Your task to perform on an android device: Search for the best Nike running shoes on Nike.com Image 0: 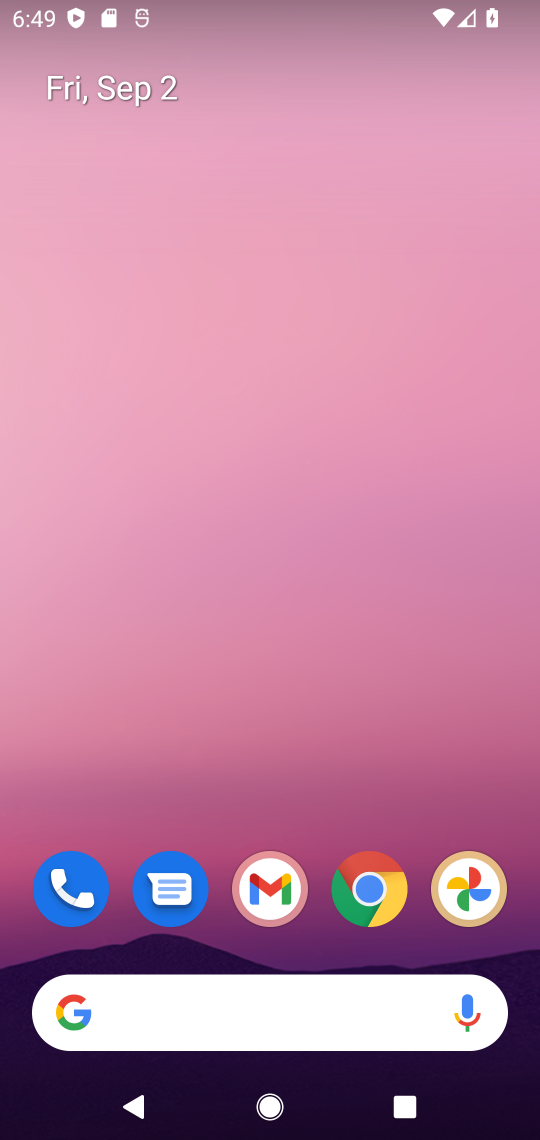
Step 0: click (228, 988)
Your task to perform on an android device: Search for the best Nike running shoes on Nike.com Image 1: 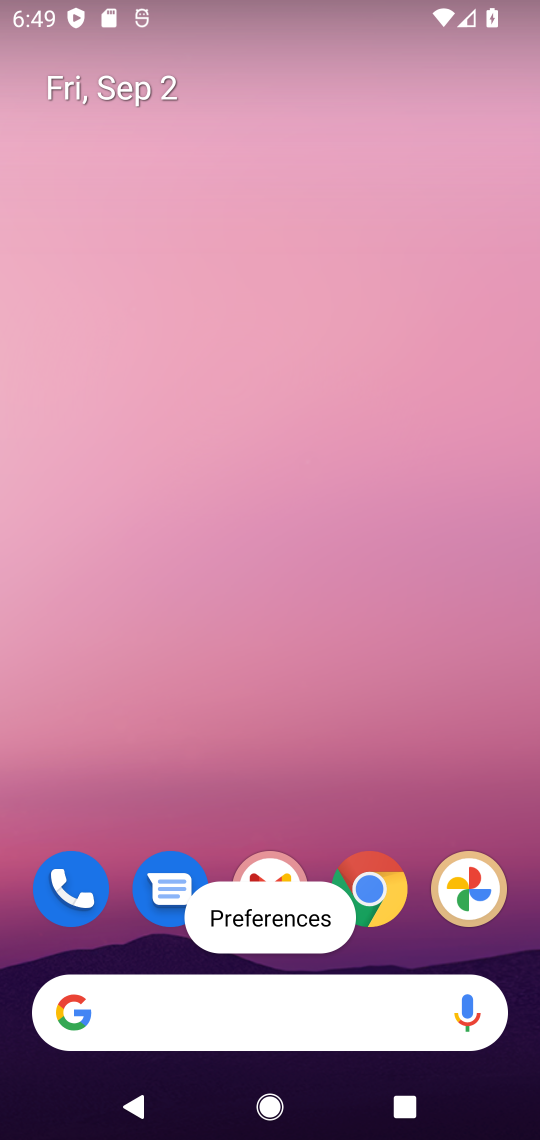
Step 1: type "Nike.com"
Your task to perform on an android device: Search for the best Nike running shoes on Nike.com Image 2: 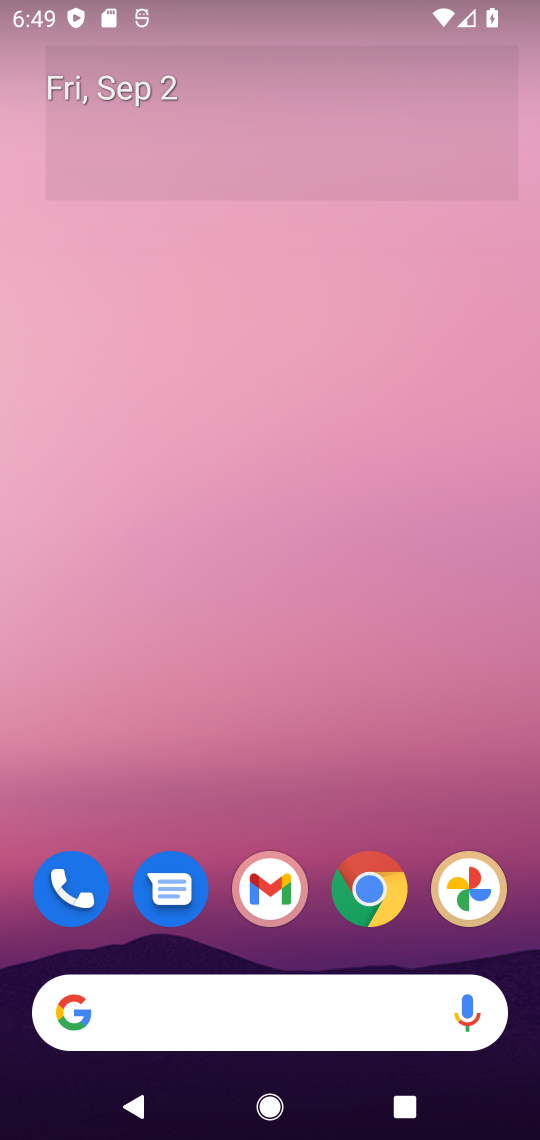
Step 2: click (253, 1026)
Your task to perform on an android device: Search for the best Nike running shoes on Nike.com Image 3: 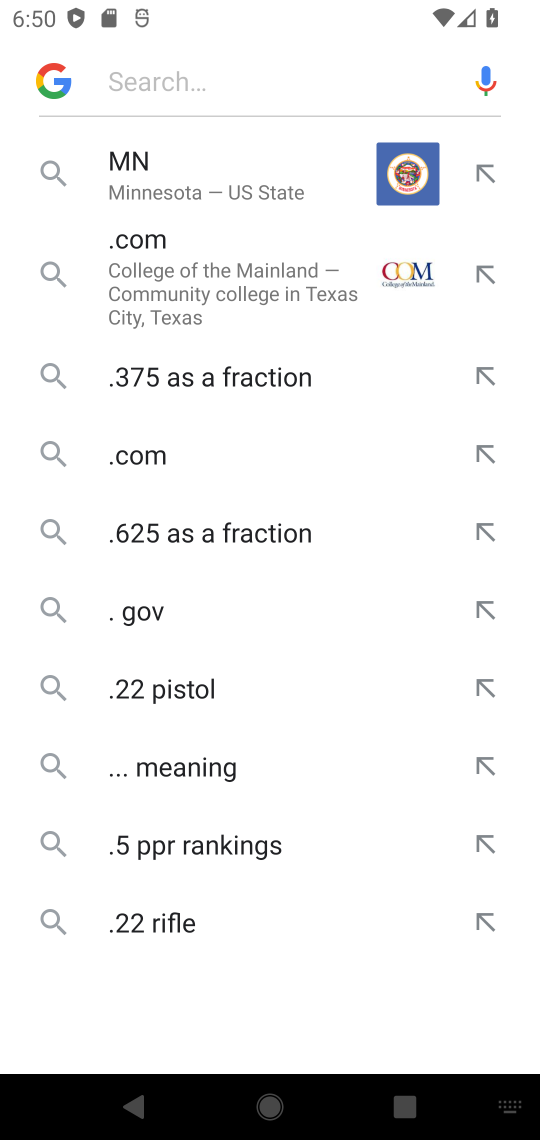
Step 3: type "Nike.com"
Your task to perform on an android device: Search for the best Nike running shoes on Nike.com Image 4: 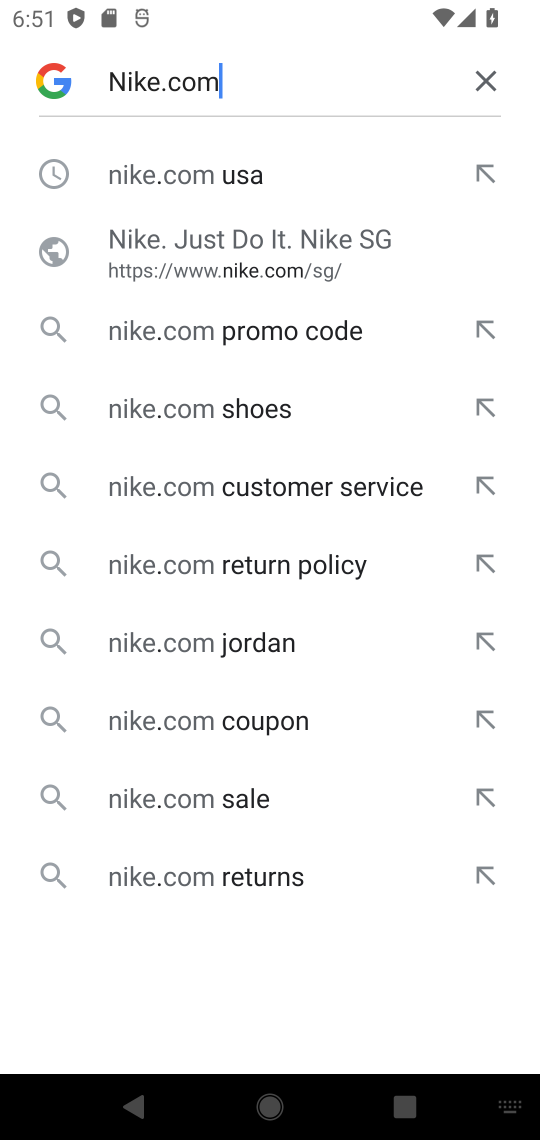
Step 4: click (216, 188)
Your task to perform on an android device: Search for the best Nike running shoes on Nike.com Image 5: 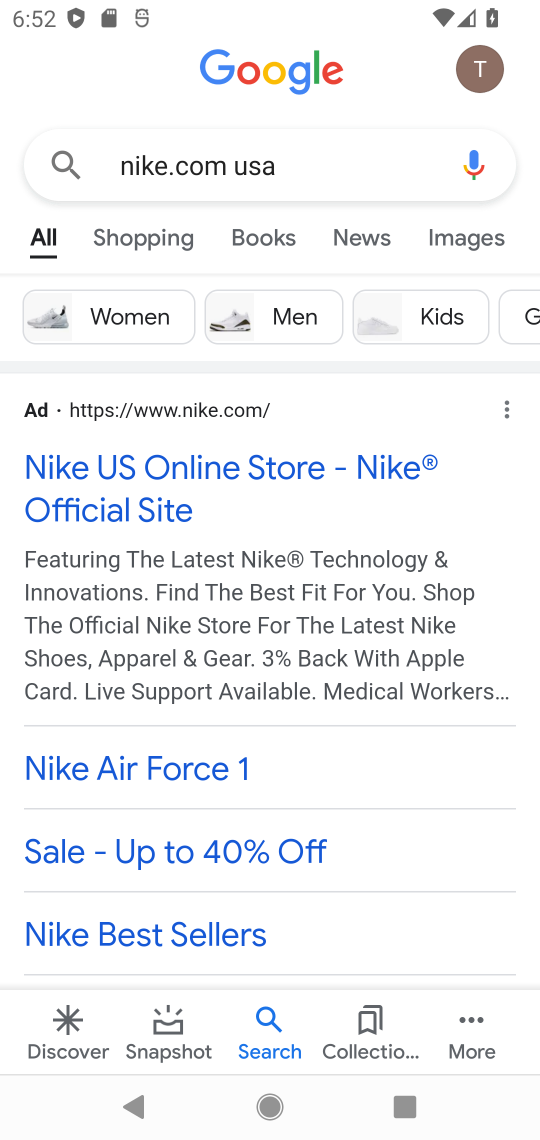
Step 5: click (227, 363)
Your task to perform on an android device: Search for the best Nike running shoes on Nike.com Image 6: 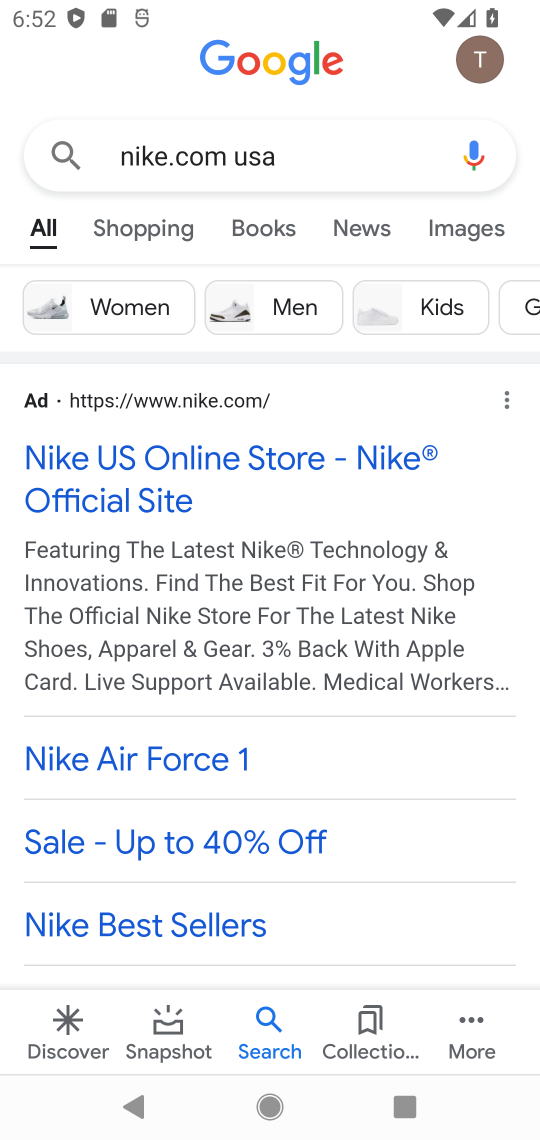
Step 6: drag from (295, 850) to (323, 450)
Your task to perform on an android device: Search for the best Nike running shoes on Nike.com Image 7: 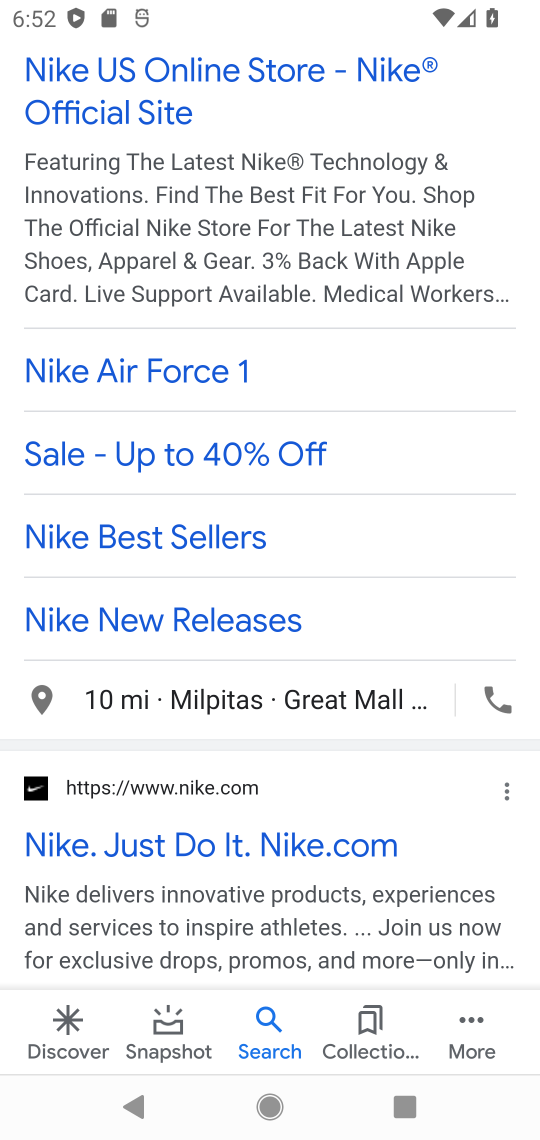
Step 7: drag from (317, 812) to (275, 441)
Your task to perform on an android device: Search for the best Nike running shoes on Nike.com Image 8: 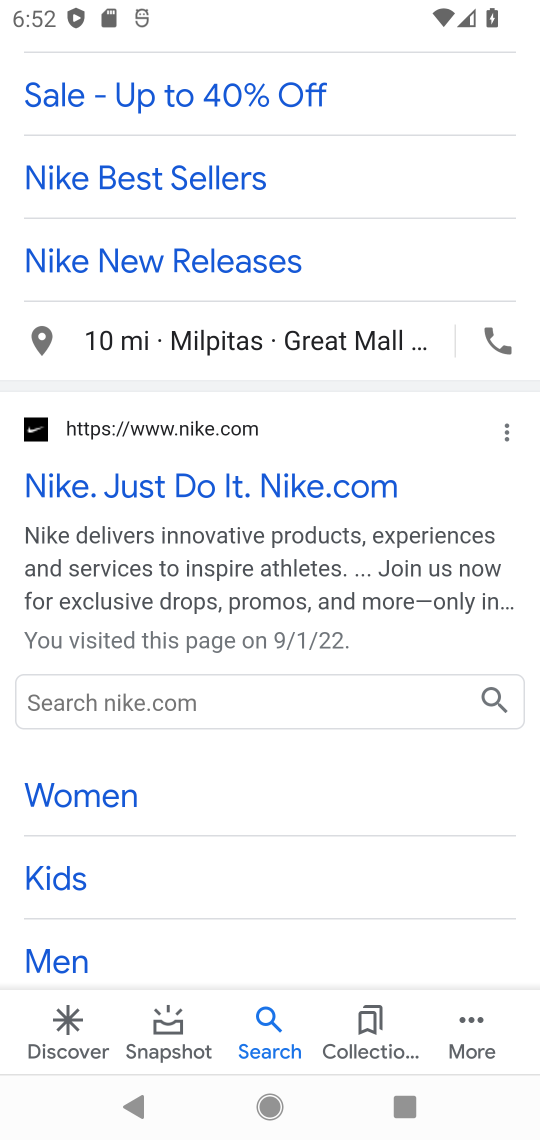
Step 8: click (282, 510)
Your task to perform on an android device: Search for the best Nike running shoes on Nike.com Image 9: 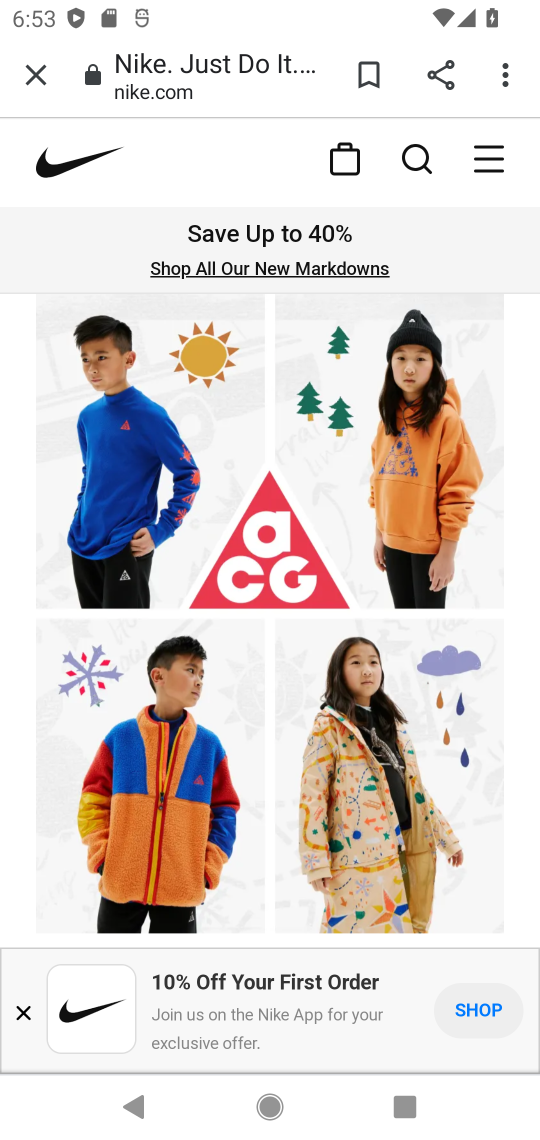
Step 9: click (416, 158)
Your task to perform on an android device: Search for the best Nike running shoes on Nike.com Image 10: 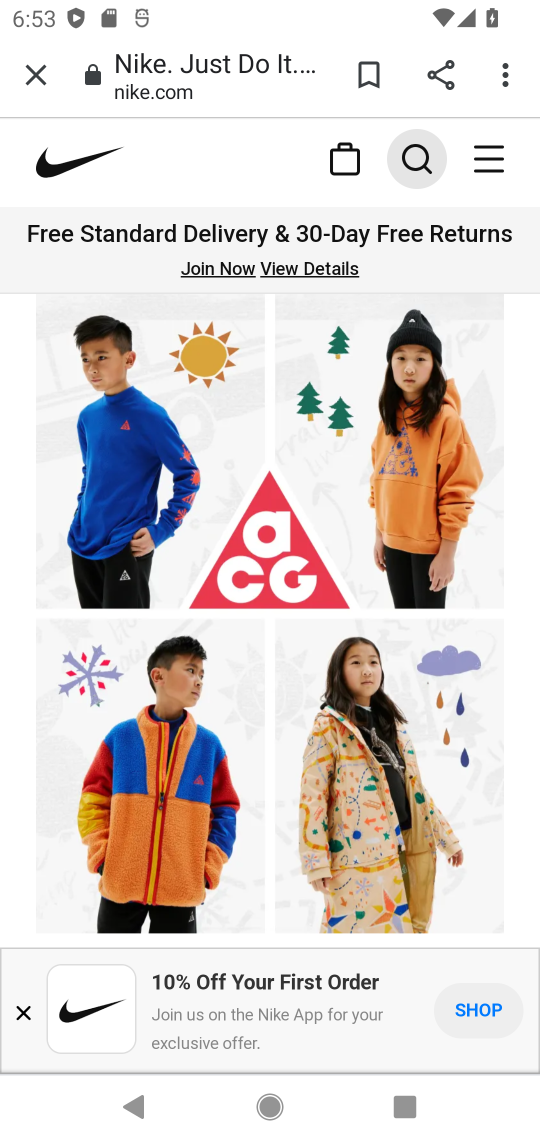
Step 10: click (429, 160)
Your task to perform on an android device: Search for the best Nike running shoes on Nike.com Image 11: 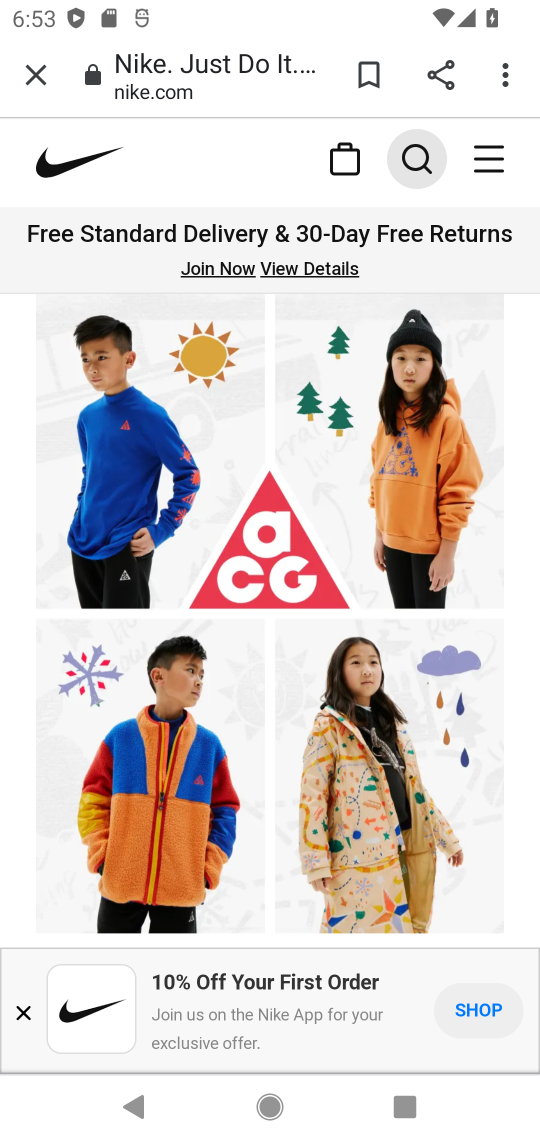
Step 11: click (407, 144)
Your task to perform on an android device: Search for the best Nike running shoes on Nike.com Image 12: 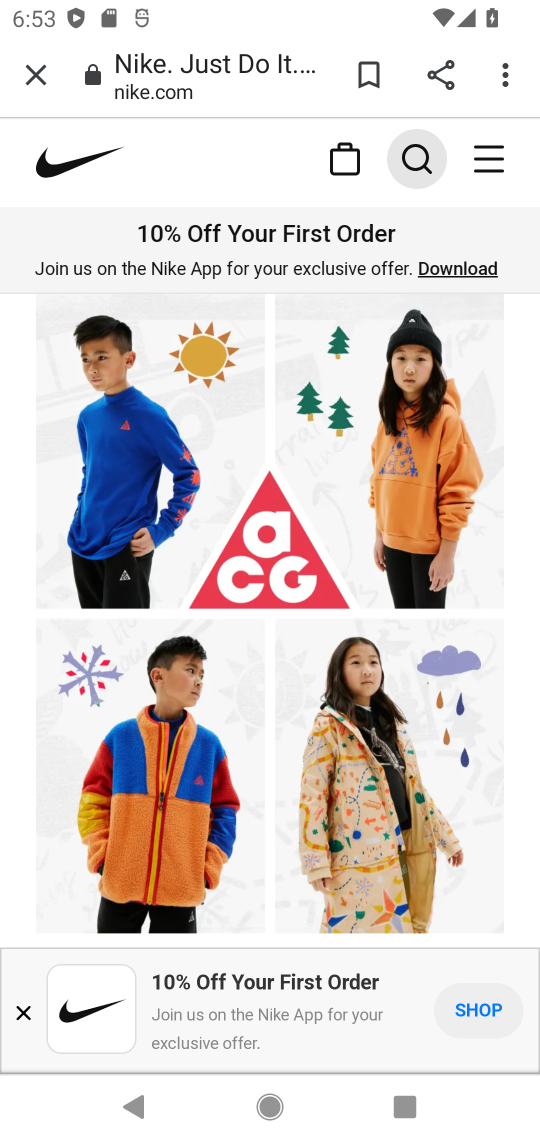
Step 12: click (409, 161)
Your task to perform on an android device: Search for the best Nike running shoes on Nike.com Image 13: 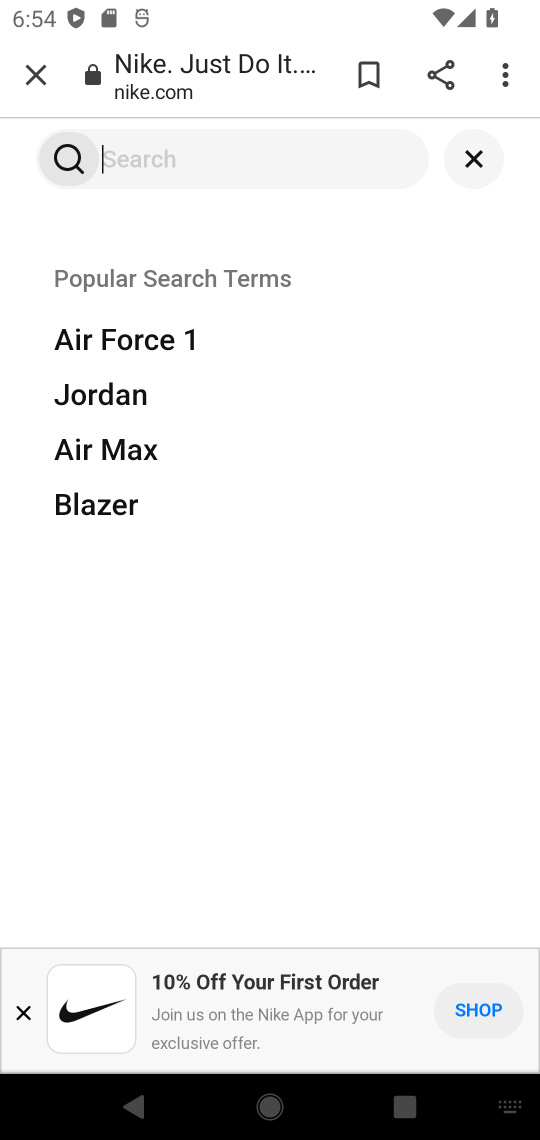
Step 13: type "Nike running shoes"
Your task to perform on an android device: Search for the best Nike running shoes on Nike.com Image 14: 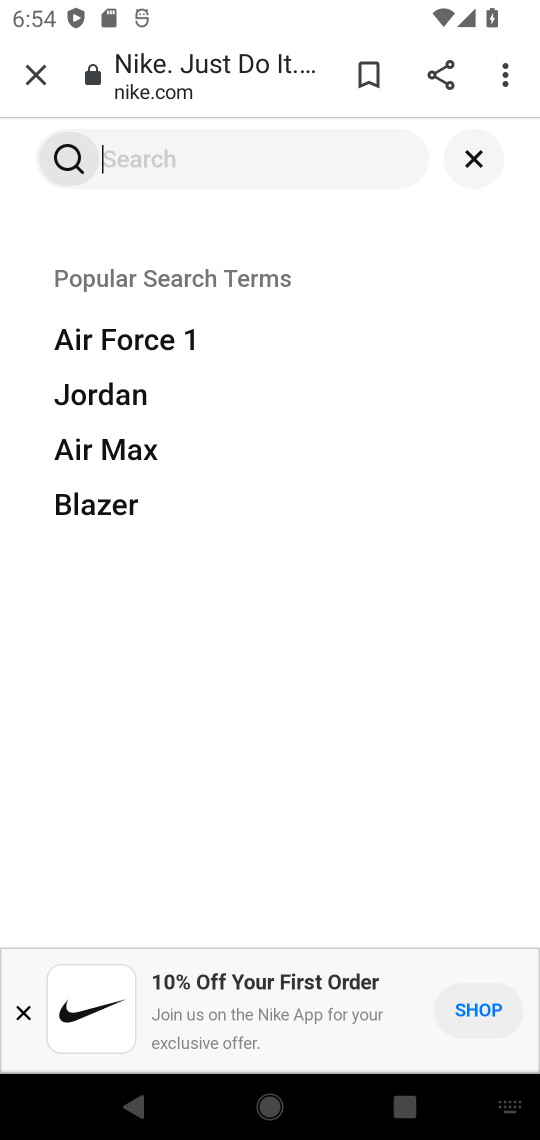
Step 14: type ""
Your task to perform on an android device: Search for the best Nike running shoes on Nike.com Image 15: 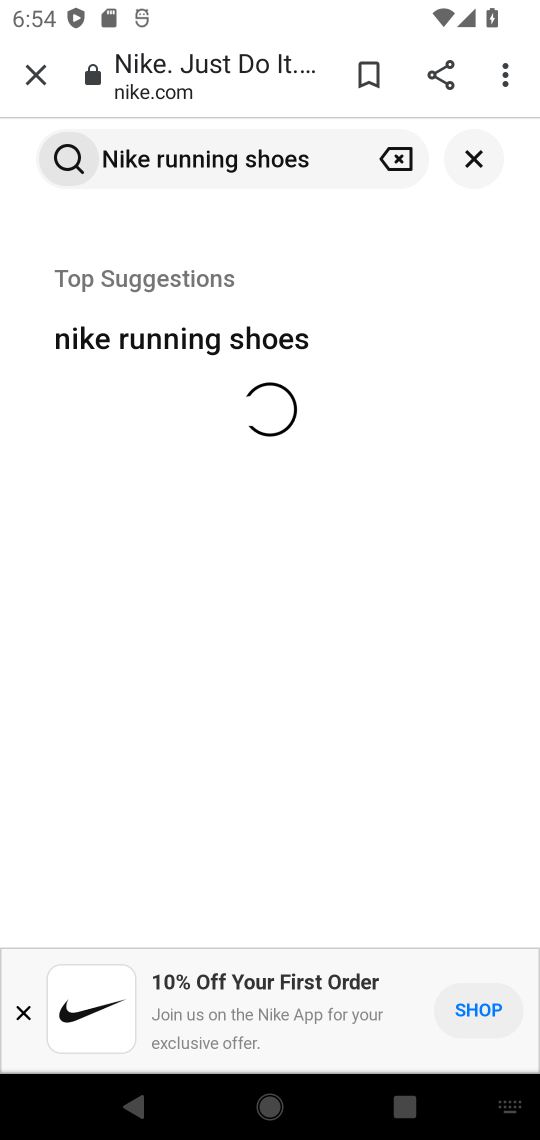
Step 15: click (304, 339)
Your task to perform on an android device: Search for the best Nike running shoes on Nike.com Image 16: 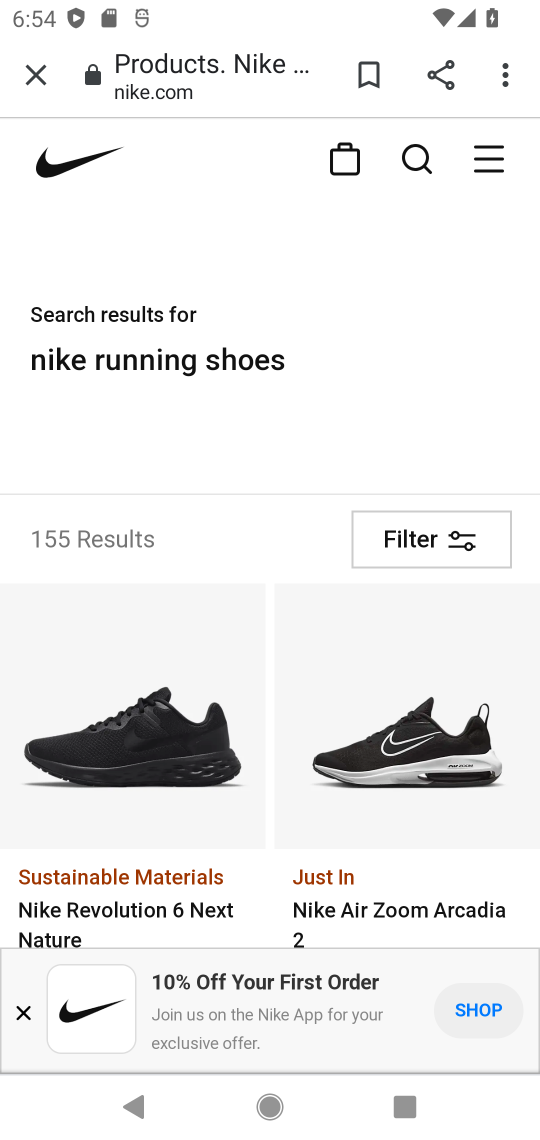
Step 16: task complete